Your task to perform on an android device: see creations saved in the google photos Image 0: 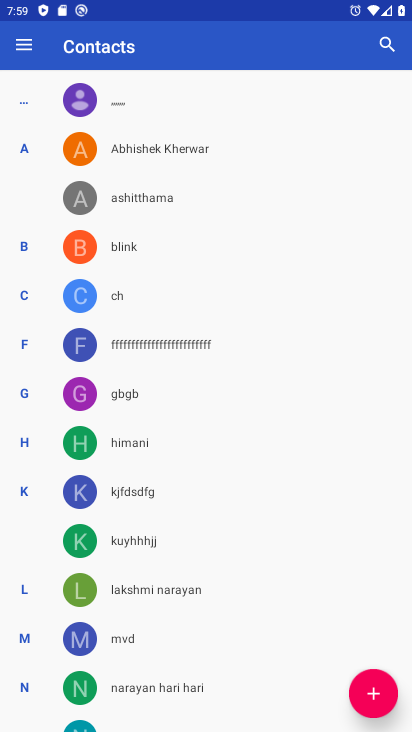
Step 0: press home button
Your task to perform on an android device: see creations saved in the google photos Image 1: 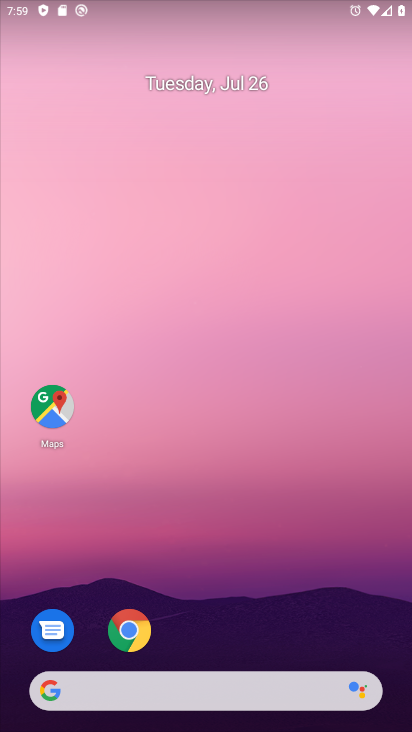
Step 1: drag from (164, 694) to (396, 109)
Your task to perform on an android device: see creations saved in the google photos Image 2: 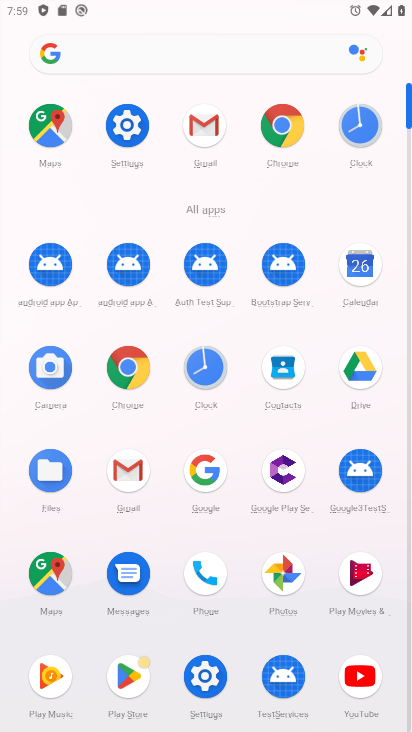
Step 2: click (282, 572)
Your task to perform on an android device: see creations saved in the google photos Image 3: 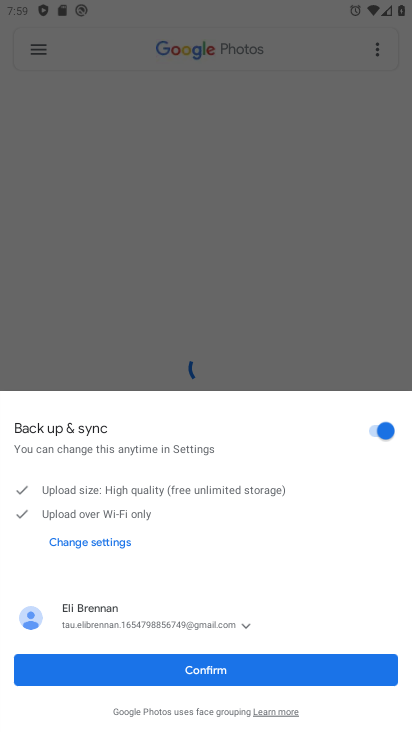
Step 3: click (202, 668)
Your task to perform on an android device: see creations saved in the google photos Image 4: 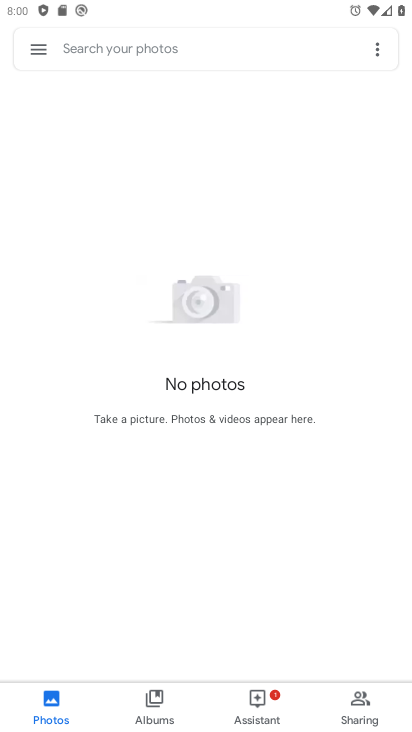
Step 4: click (39, 41)
Your task to perform on an android device: see creations saved in the google photos Image 5: 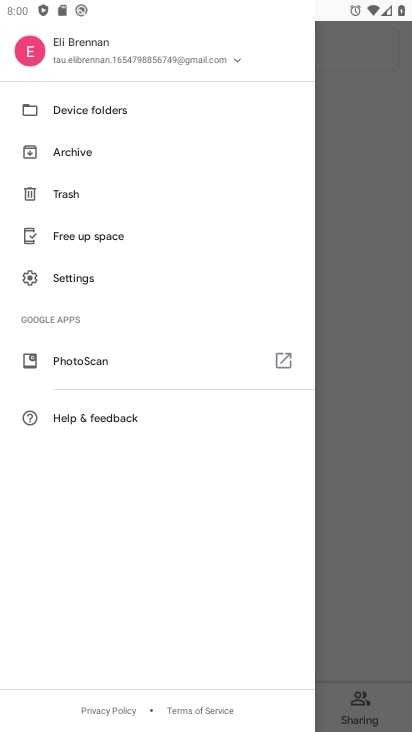
Step 5: click (86, 273)
Your task to perform on an android device: see creations saved in the google photos Image 6: 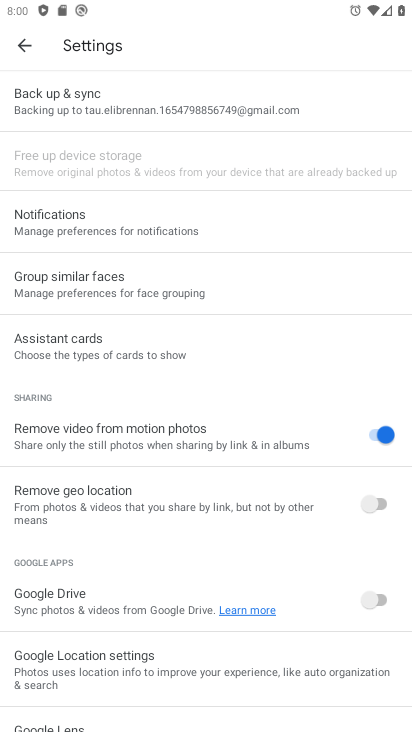
Step 6: drag from (110, 470) to (152, 357)
Your task to perform on an android device: see creations saved in the google photos Image 7: 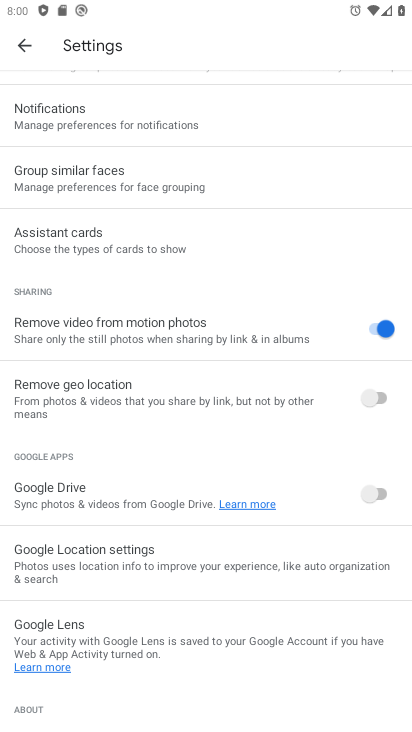
Step 7: drag from (187, 568) to (209, 456)
Your task to perform on an android device: see creations saved in the google photos Image 8: 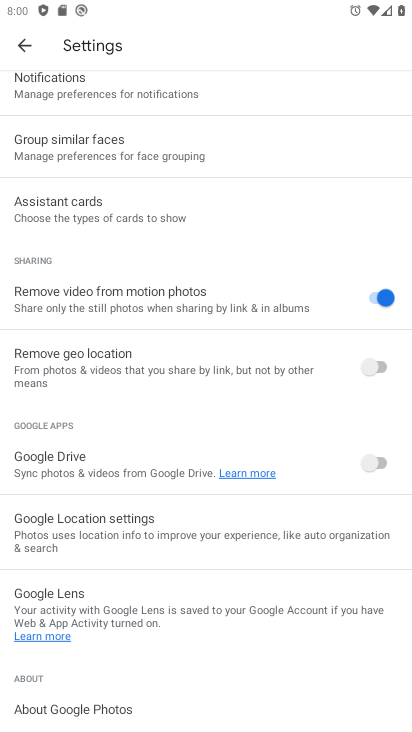
Step 8: drag from (213, 617) to (245, 519)
Your task to perform on an android device: see creations saved in the google photos Image 9: 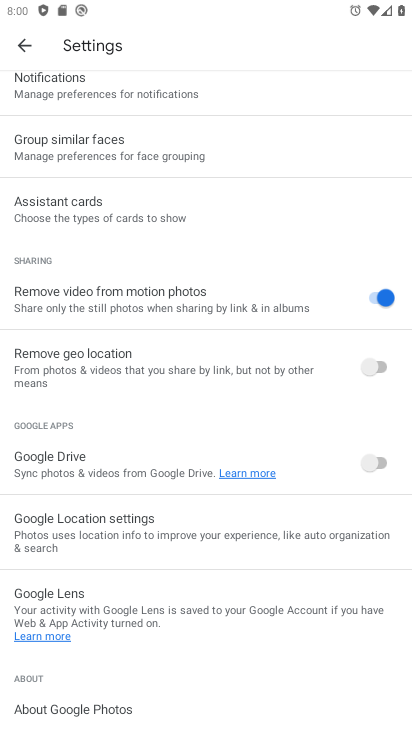
Step 9: press back button
Your task to perform on an android device: see creations saved in the google photos Image 10: 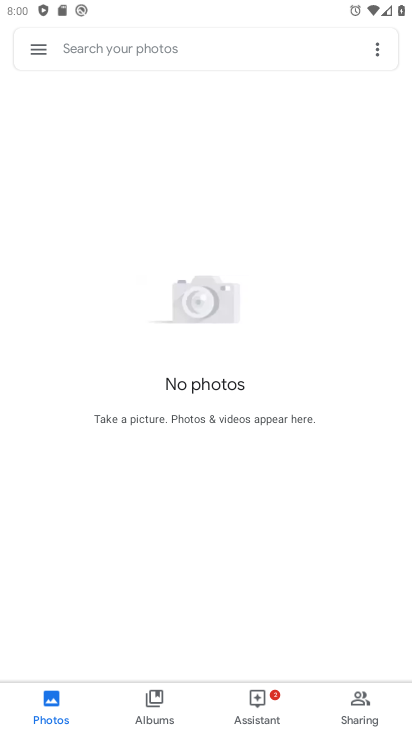
Step 10: click (158, 697)
Your task to perform on an android device: see creations saved in the google photos Image 11: 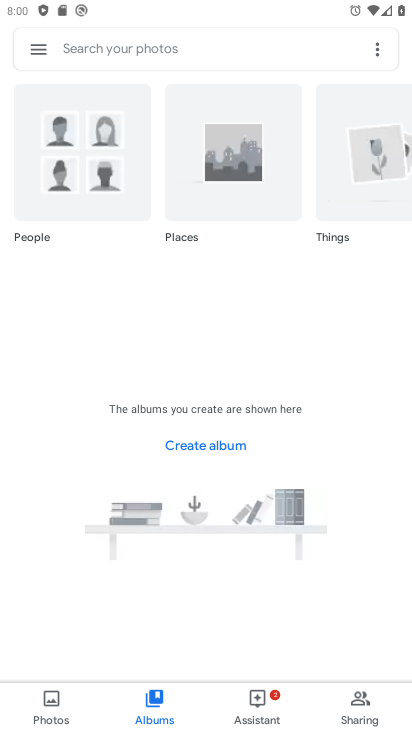
Step 11: click (255, 703)
Your task to perform on an android device: see creations saved in the google photos Image 12: 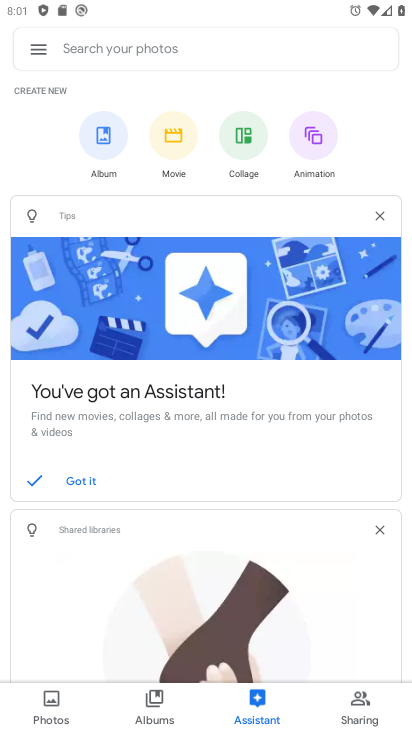
Step 12: drag from (286, 656) to (309, 396)
Your task to perform on an android device: see creations saved in the google photos Image 13: 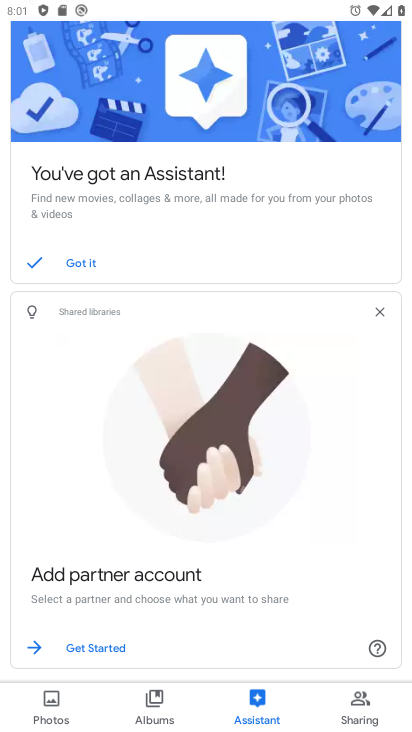
Step 13: click (361, 695)
Your task to perform on an android device: see creations saved in the google photos Image 14: 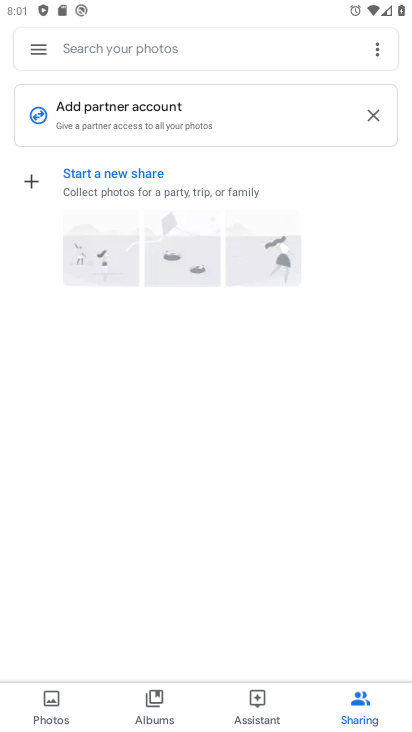
Step 14: click (127, 53)
Your task to perform on an android device: see creations saved in the google photos Image 15: 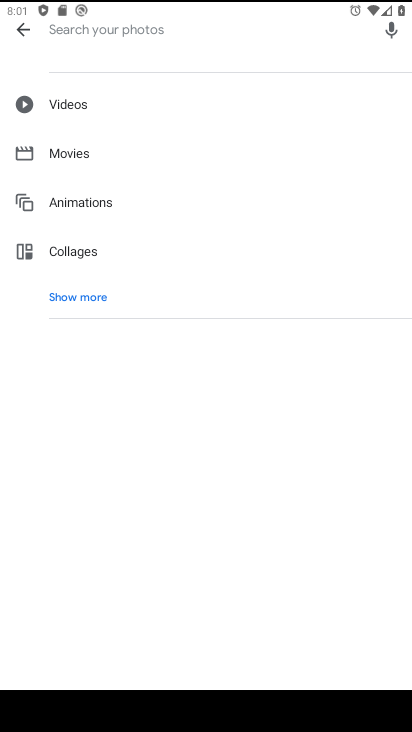
Step 15: click (89, 296)
Your task to perform on an android device: see creations saved in the google photos Image 16: 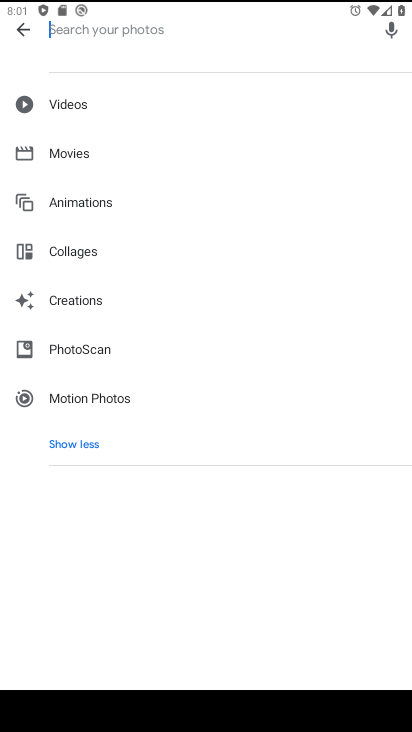
Step 16: click (93, 302)
Your task to perform on an android device: see creations saved in the google photos Image 17: 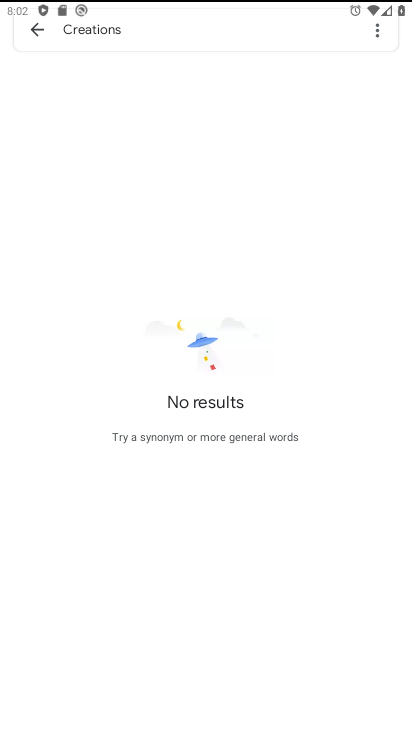
Step 17: task complete